Your task to perform on an android device: Go to settings Image 0: 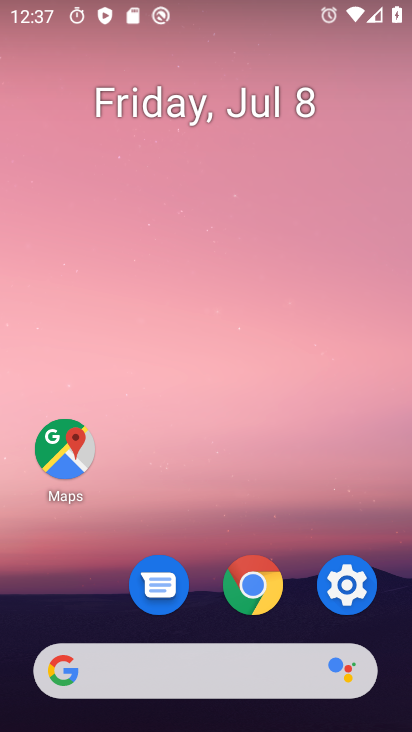
Step 0: click (343, 602)
Your task to perform on an android device: Go to settings Image 1: 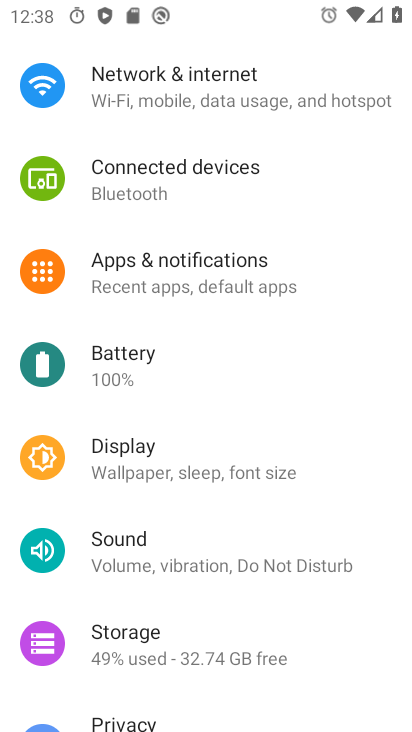
Step 1: task complete